Your task to perform on an android device: Open Yahoo.com Image 0: 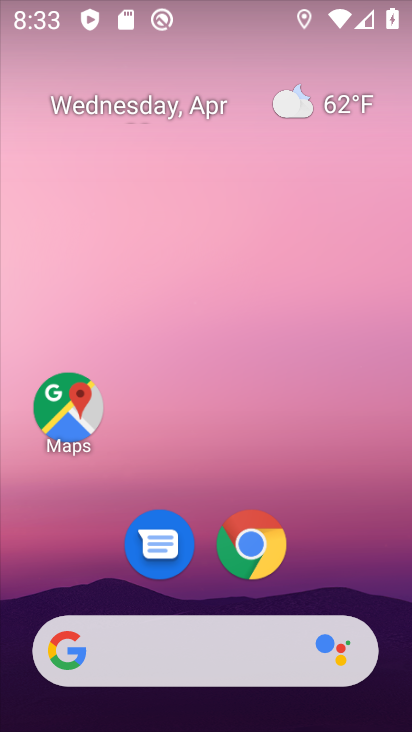
Step 0: click (262, 546)
Your task to perform on an android device: Open Yahoo.com Image 1: 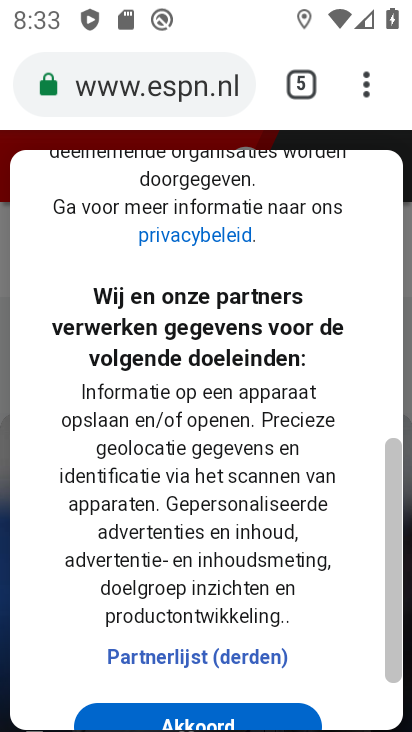
Step 1: click (299, 85)
Your task to perform on an android device: Open Yahoo.com Image 2: 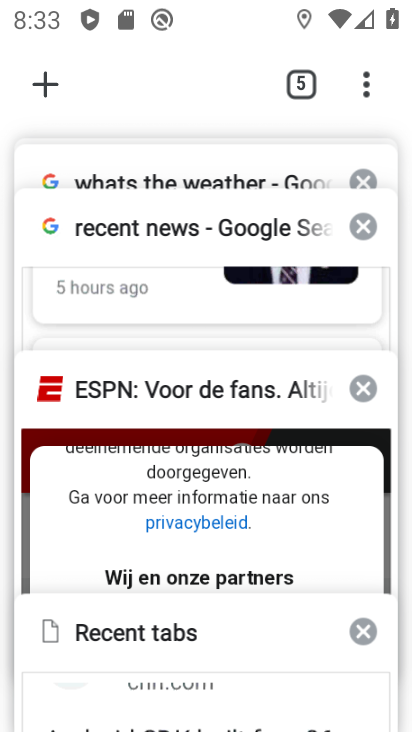
Step 2: drag from (139, 294) to (117, 647)
Your task to perform on an android device: Open Yahoo.com Image 3: 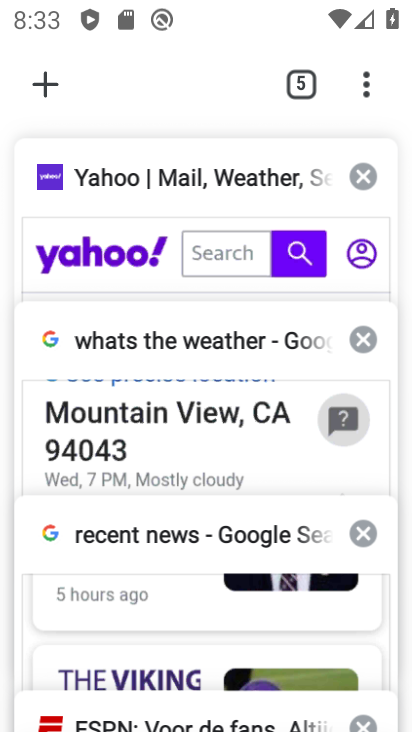
Step 3: click (137, 251)
Your task to perform on an android device: Open Yahoo.com Image 4: 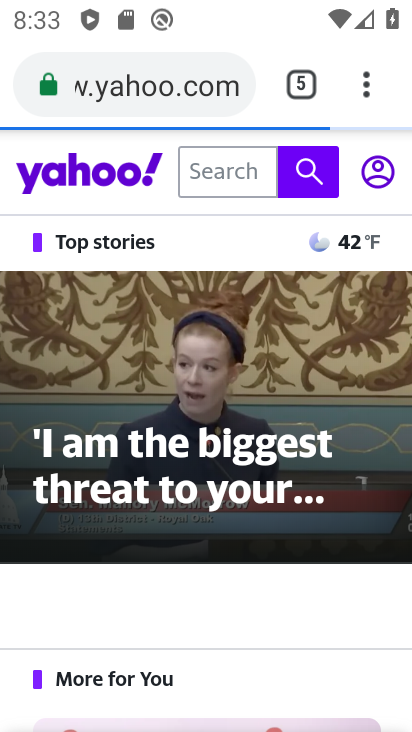
Step 4: task complete